Your task to perform on an android device: Search for Mexican restaurants on Maps Image 0: 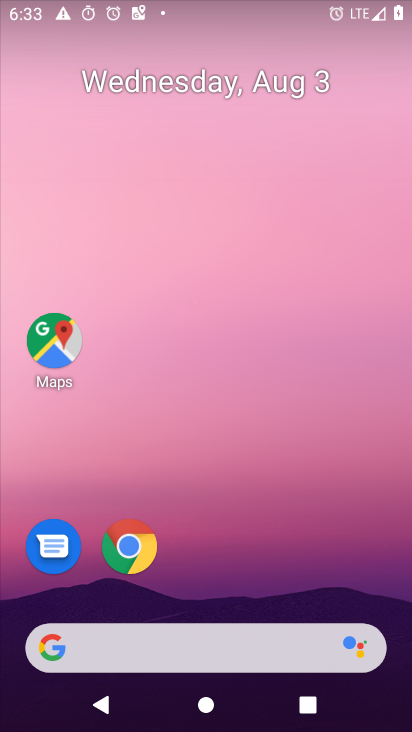
Step 0: press home button
Your task to perform on an android device: Search for Mexican restaurants on Maps Image 1: 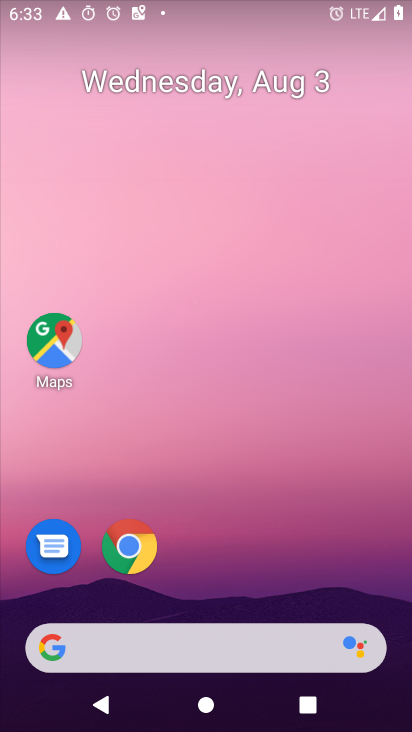
Step 1: click (49, 344)
Your task to perform on an android device: Search for Mexican restaurants on Maps Image 2: 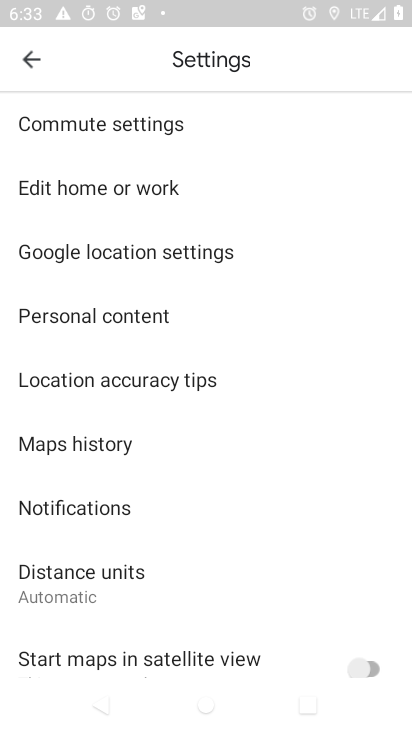
Step 2: click (27, 61)
Your task to perform on an android device: Search for Mexican restaurants on Maps Image 3: 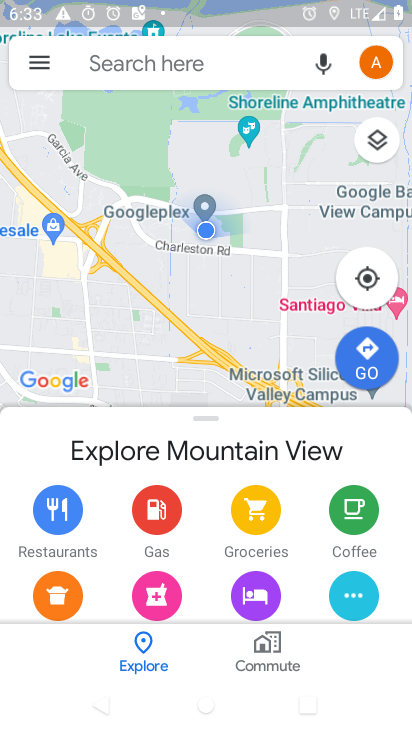
Step 3: click (164, 66)
Your task to perform on an android device: Search for Mexican restaurants on Maps Image 4: 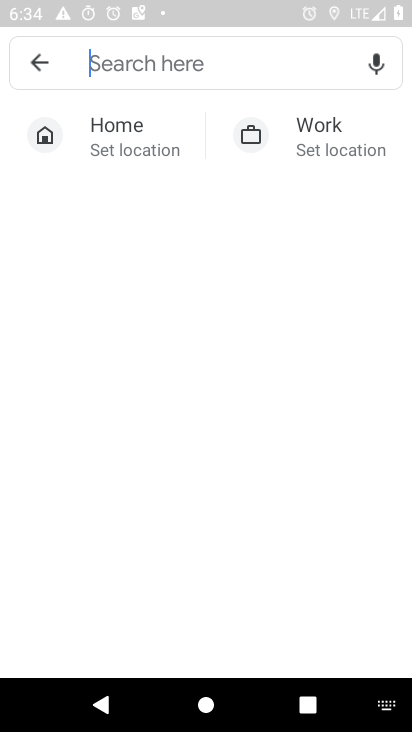
Step 4: type "Mexican restaurants"
Your task to perform on an android device: Search for Mexican restaurants on Maps Image 5: 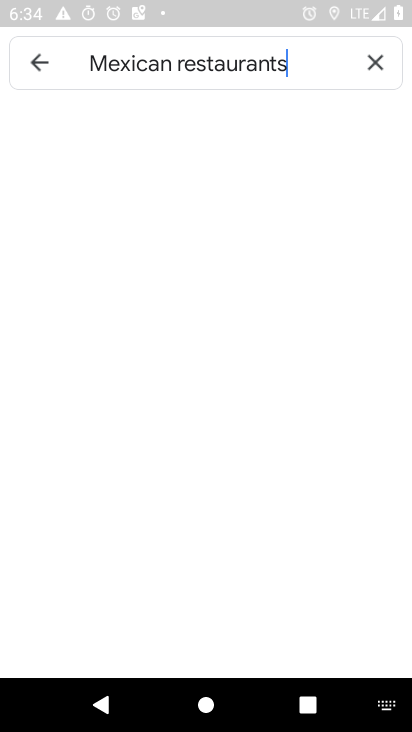
Step 5: press enter
Your task to perform on an android device: Search for Mexican restaurants on Maps Image 6: 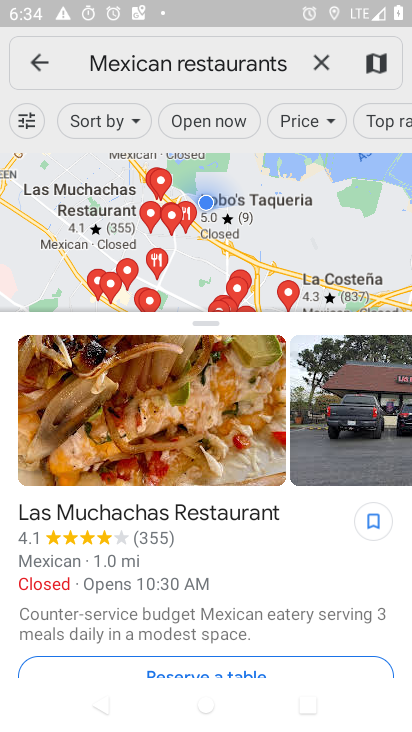
Step 6: task complete